Your task to perform on an android device: Open eBay Image 0: 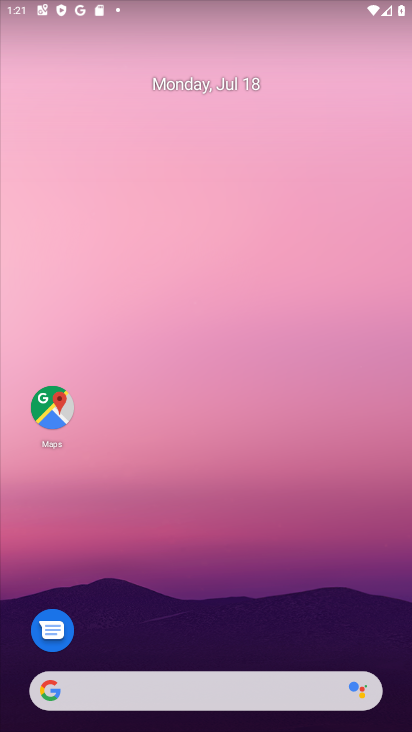
Step 0: drag from (224, 632) to (191, 4)
Your task to perform on an android device: Open eBay Image 1: 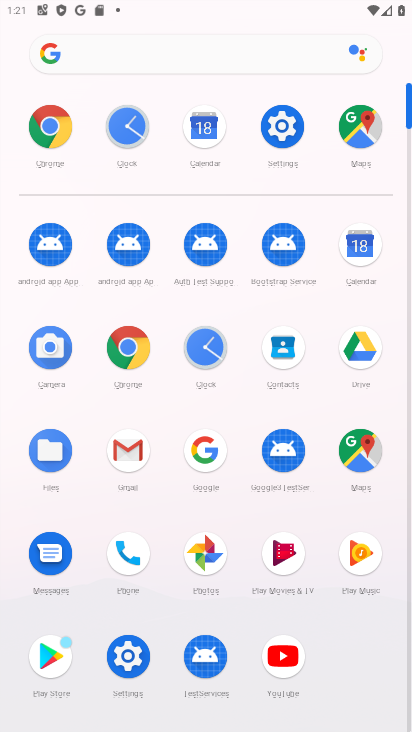
Step 1: click (122, 393)
Your task to perform on an android device: Open eBay Image 2: 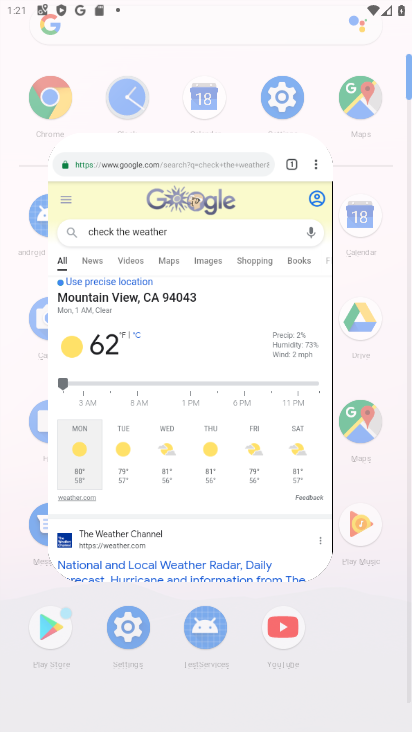
Step 2: click (128, 333)
Your task to perform on an android device: Open eBay Image 3: 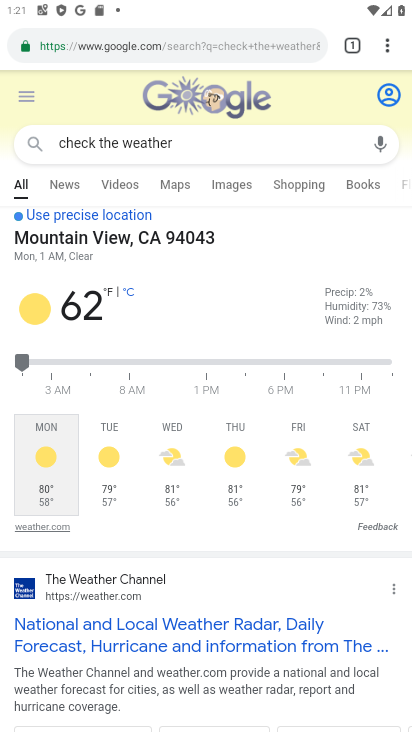
Step 3: click (212, 39)
Your task to perform on an android device: Open eBay Image 4: 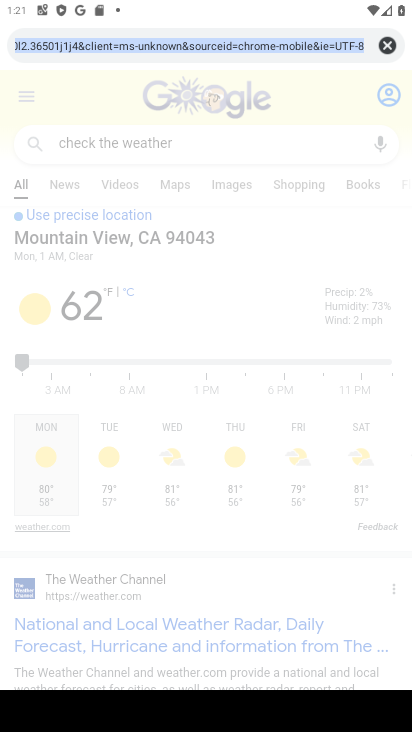
Step 4: type "ebay"
Your task to perform on an android device: Open eBay Image 5: 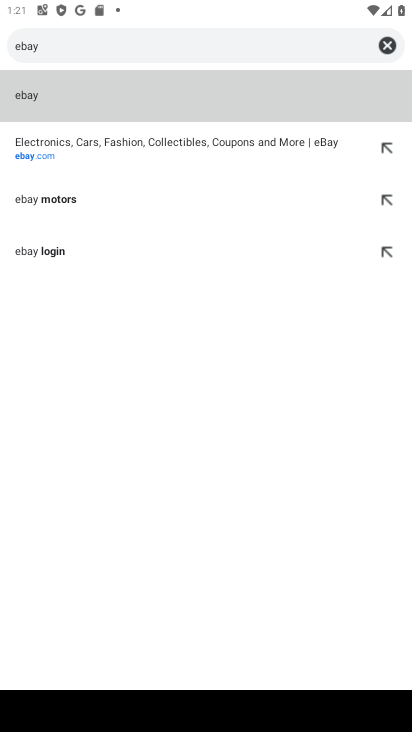
Step 5: click (132, 145)
Your task to perform on an android device: Open eBay Image 6: 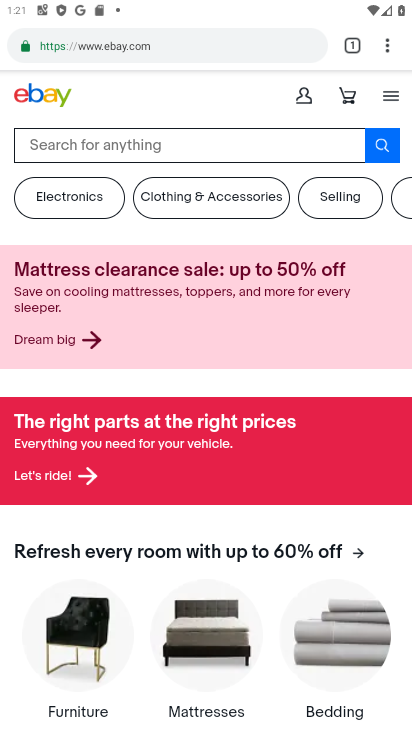
Step 6: task complete